Your task to perform on an android device: turn off notifications in google photos Image 0: 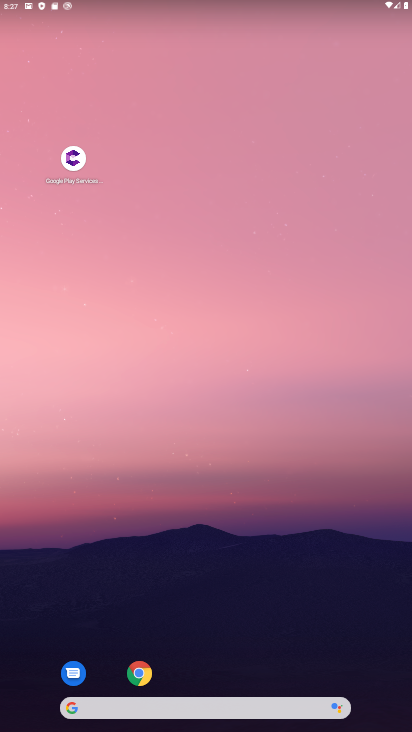
Step 0: drag from (212, 695) to (205, 199)
Your task to perform on an android device: turn off notifications in google photos Image 1: 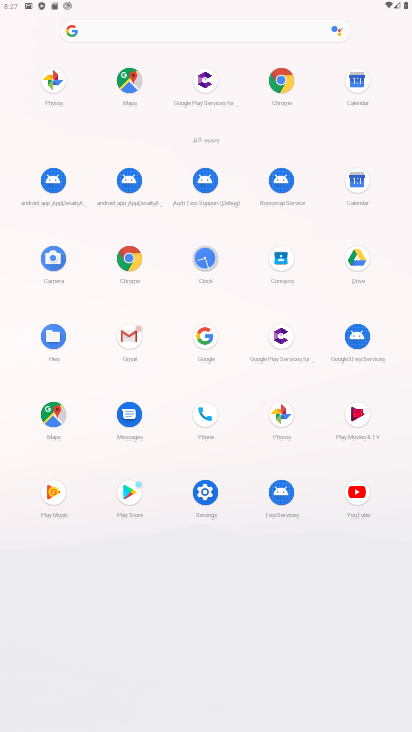
Step 1: click (276, 417)
Your task to perform on an android device: turn off notifications in google photos Image 2: 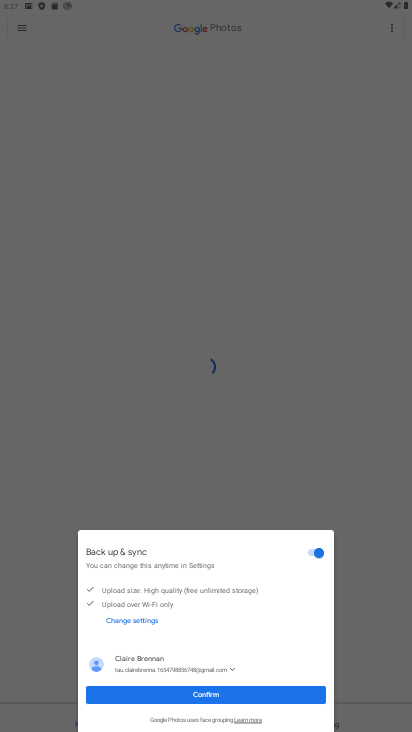
Step 2: click (192, 696)
Your task to perform on an android device: turn off notifications in google photos Image 3: 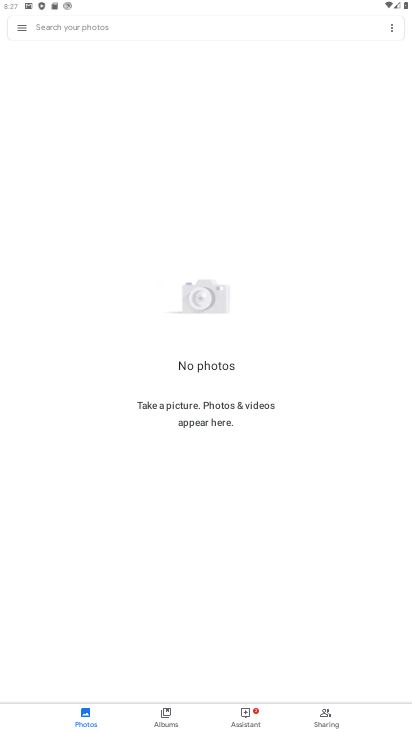
Step 3: click (24, 25)
Your task to perform on an android device: turn off notifications in google photos Image 4: 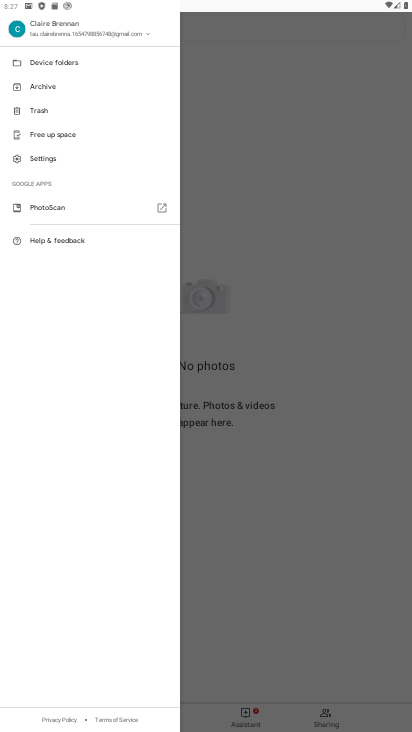
Step 4: click (43, 159)
Your task to perform on an android device: turn off notifications in google photos Image 5: 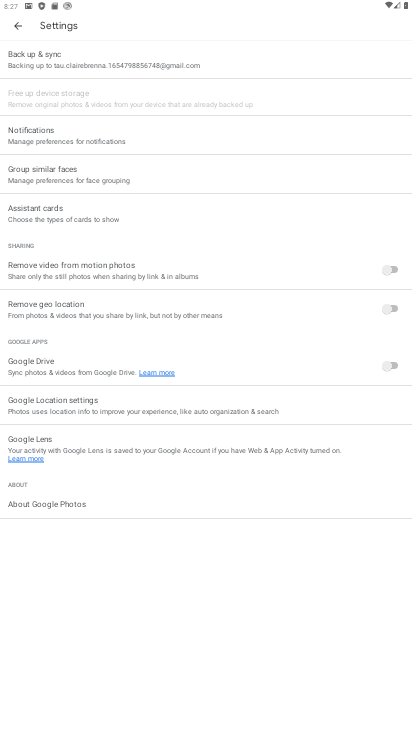
Step 5: click (29, 56)
Your task to perform on an android device: turn off notifications in google photos Image 6: 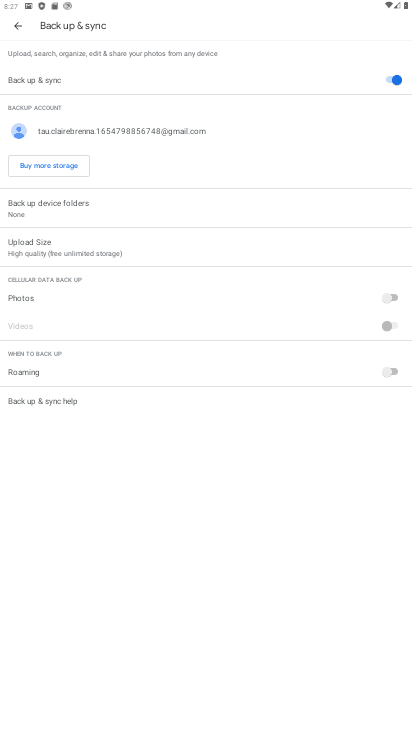
Step 6: click (16, 28)
Your task to perform on an android device: turn off notifications in google photos Image 7: 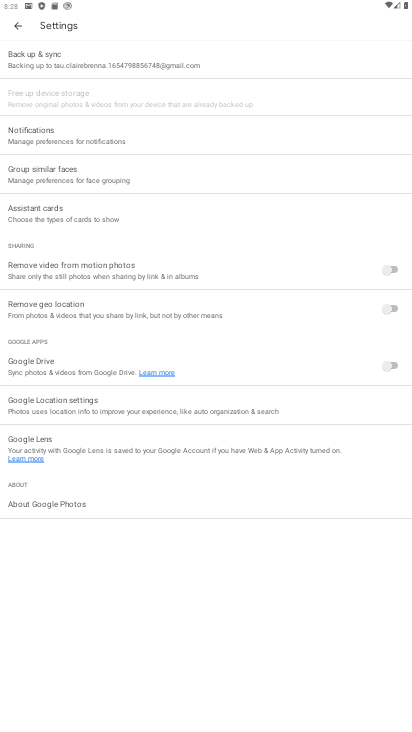
Step 7: click (51, 141)
Your task to perform on an android device: turn off notifications in google photos Image 8: 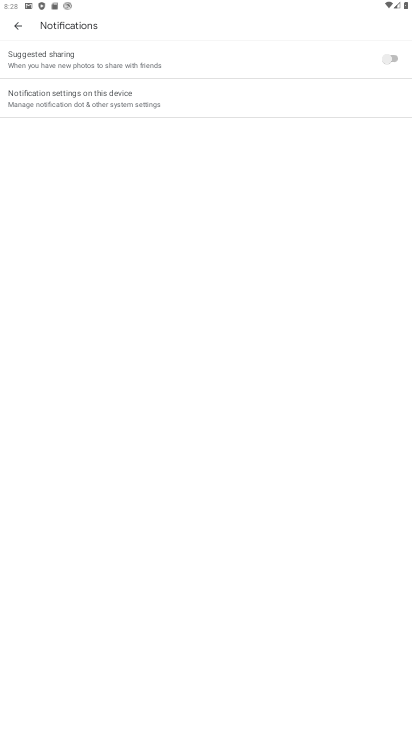
Step 8: click (44, 99)
Your task to perform on an android device: turn off notifications in google photos Image 9: 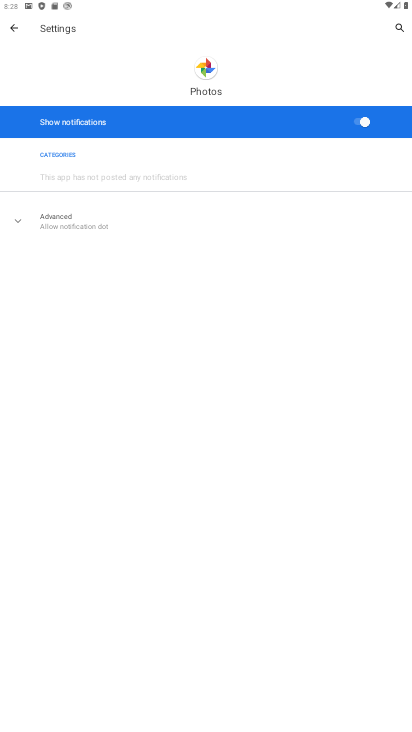
Step 9: click (358, 123)
Your task to perform on an android device: turn off notifications in google photos Image 10: 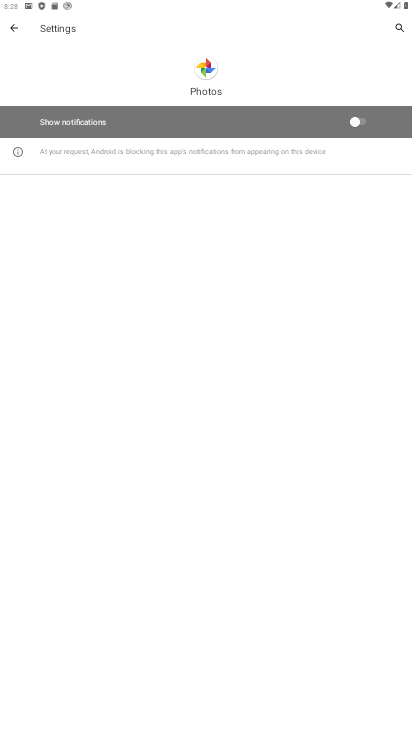
Step 10: task complete